Your task to perform on an android device: Go to display settings Image 0: 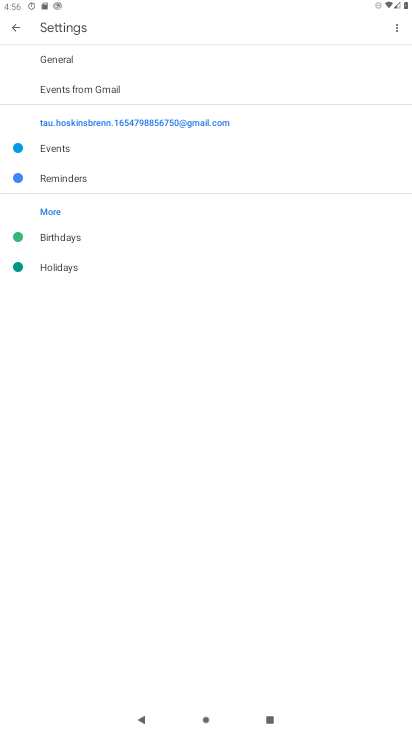
Step 0: press home button
Your task to perform on an android device: Go to display settings Image 1: 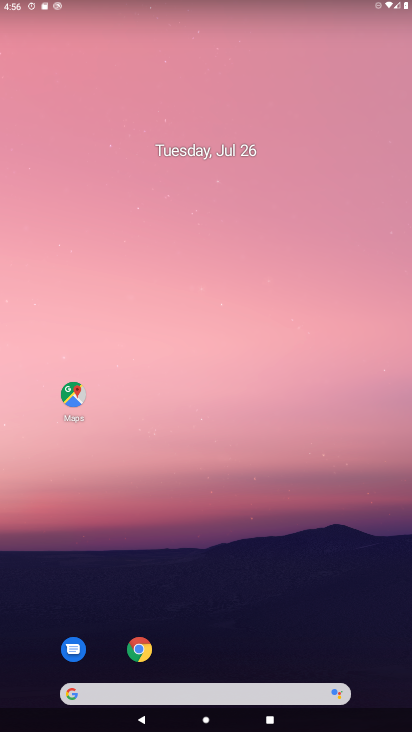
Step 1: drag from (341, 650) to (164, 91)
Your task to perform on an android device: Go to display settings Image 2: 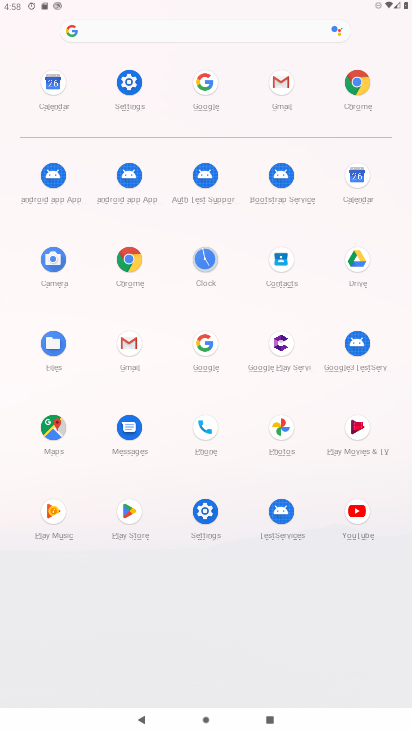
Step 2: click (194, 513)
Your task to perform on an android device: Go to display settings Image 3: 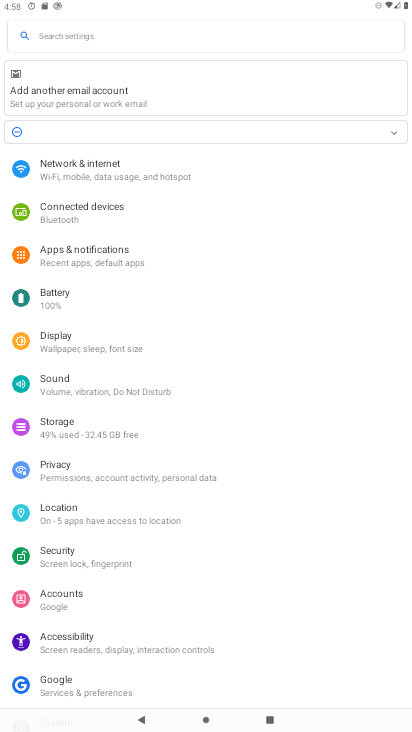
Step 3: click (71, 333)
Your task to perform on an android device: Go to display settings Image 4: 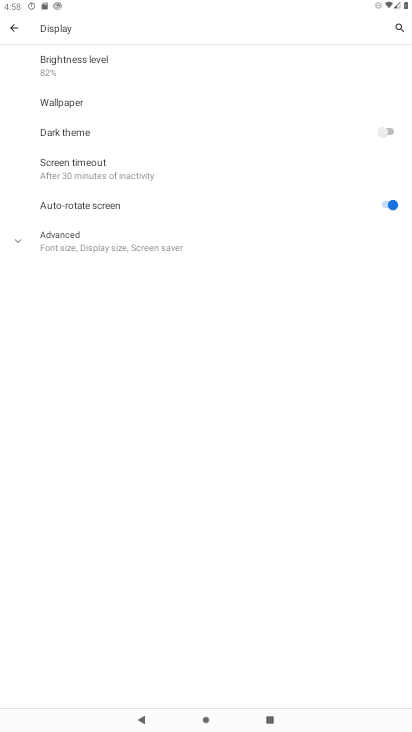
Step 4: task complete